Your task to perform on an android device: choose inbox layout in the gmail app Image 0: 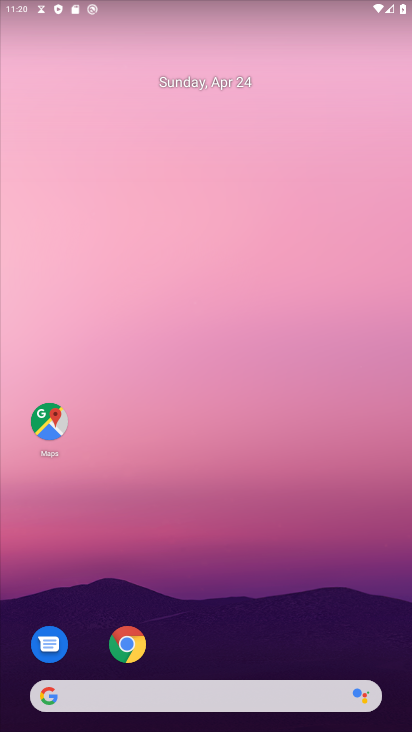
Step 0: drag from (394, 624) to (297, 1)
Your task to perform on an android device: choose inbox layout in the gmail app Image 1: 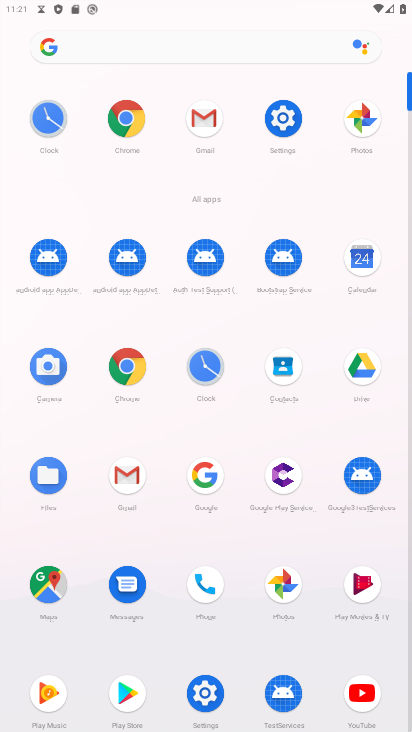
Step 1: click (205, 121)
Your task to perform on an android device: choose inbox layout in the gmail app Image 2: 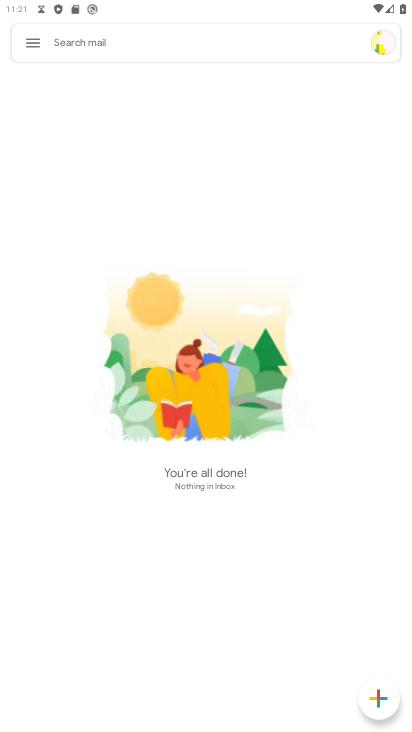
Step 2: click (35, 40)
Your task to perform on an android device: choose inbox layout in the gmail app Image 3: 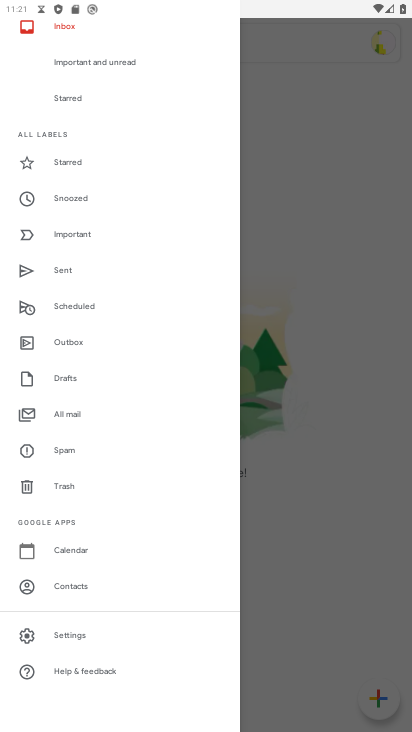
Step 3: click (68, 642)
Your task to perform on an android device: choose inbox layout in the gmail app Image 4: 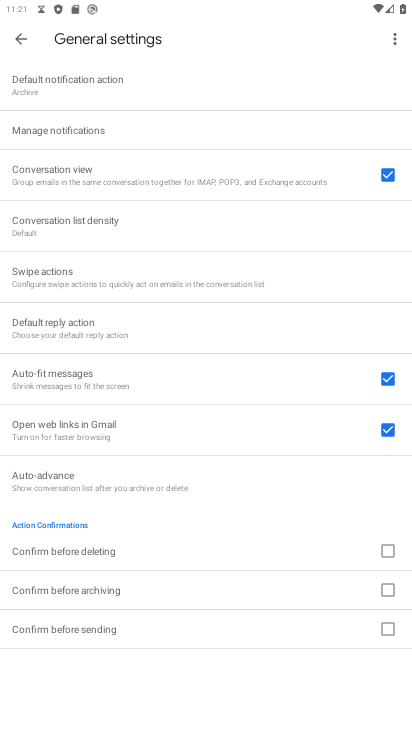
Step 4: click (27, 43)
Your task to perform on an android device: choose inbox layout in the gmail app Image 5: 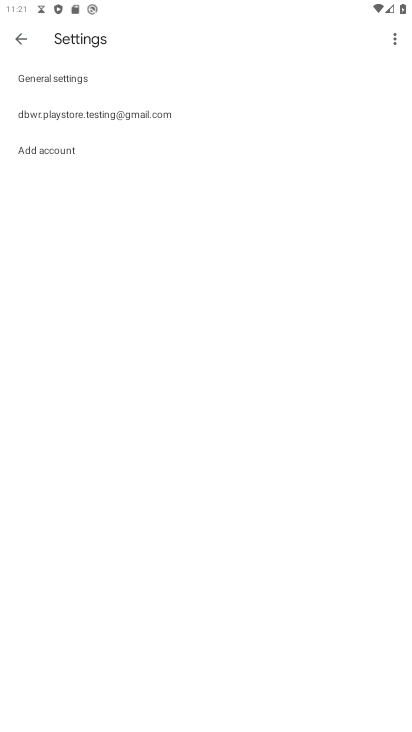
Step 5: click (72, 127)
Your task to perform on an android device: choose inbox layout in the gmail app Image 6: 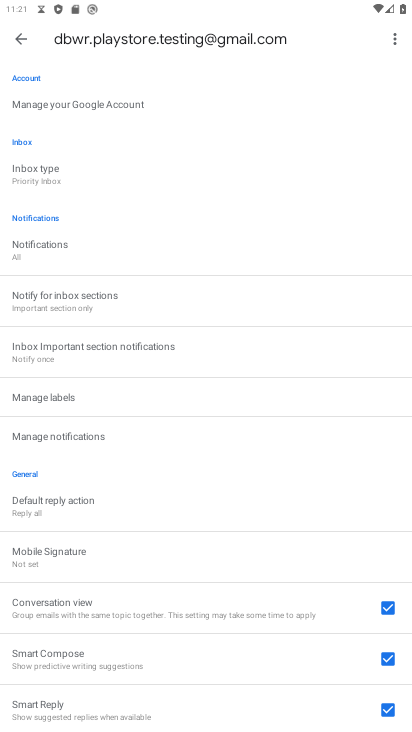
Step 6: click (44, 181)
Your task to perform on an android device: choose inbox layout in the gmail app Image 7: 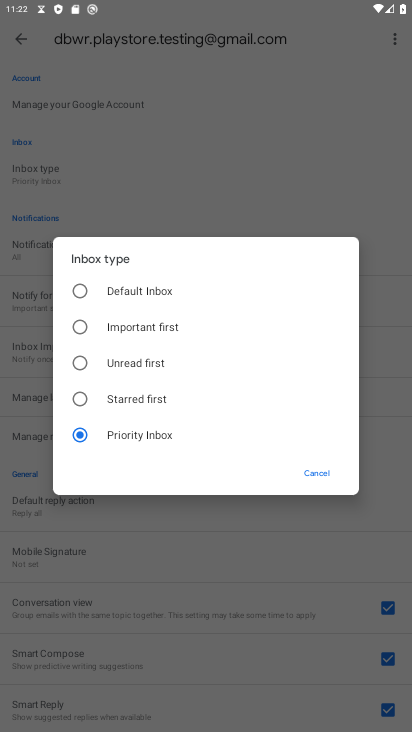
Step 7: click (84, 400)
Your task to perform on an android device: choose inbox layout in the gmail app Image 8: 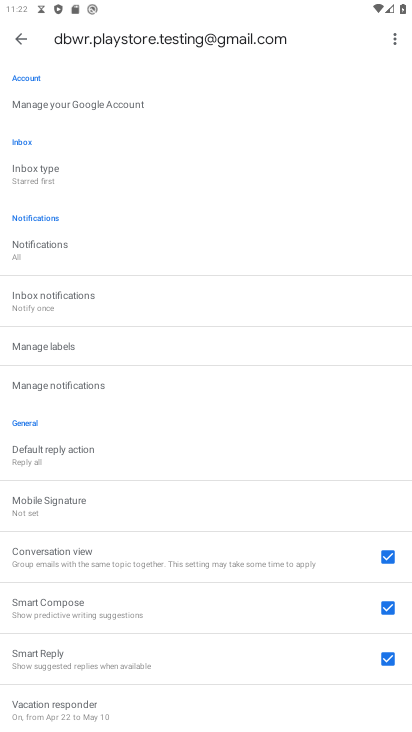
Step 8: task complete